Your task to perform on an android device: Do I have any events today? Image 0: 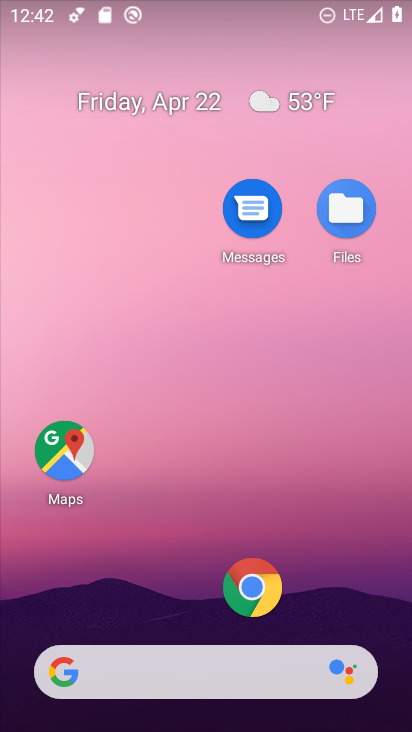
Step 0: drag from (132, 626) to (174, 118)
Your task to perform on an android device: Do I have any events today? Image 1: 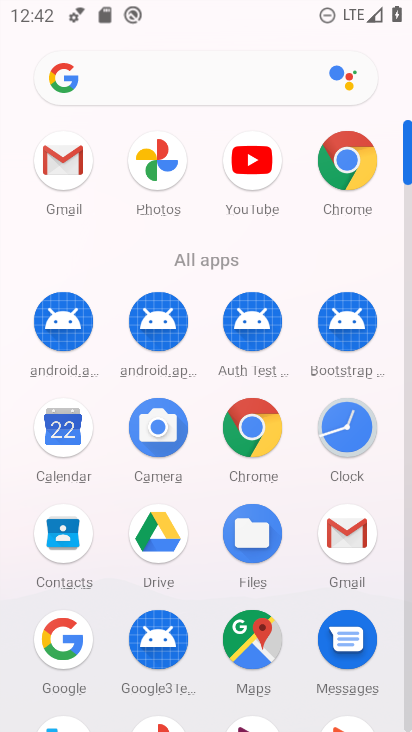
Step 1: click (57, 437)
Your task to perform on an android device: Do I have any events today? Image 2: 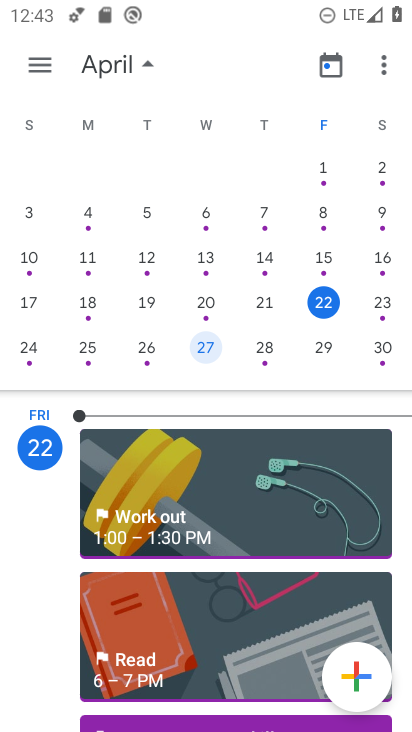
Step 2: click (319, 306)
Your task to perform on an android device: Do I have any events today? Image 3: 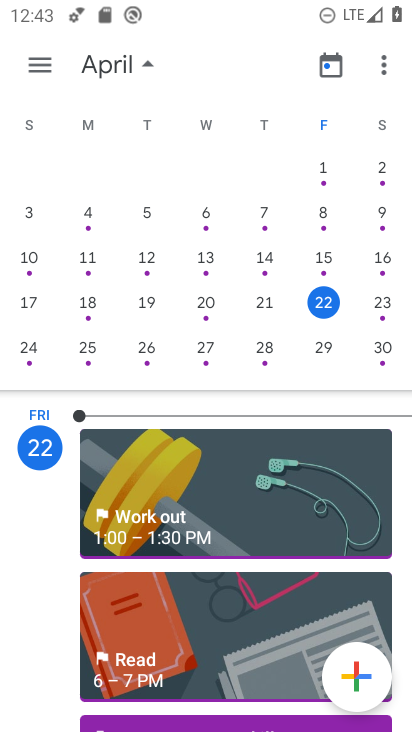
Step 3: task complete